Your task to perform on an android device: turn on sleep mode Image 0: 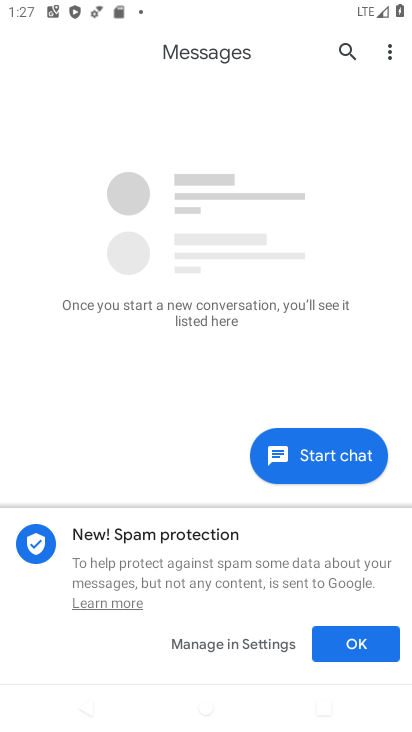
Step 0: press home button
Your task to perform on an android device: turn on sleep mode Image 1: 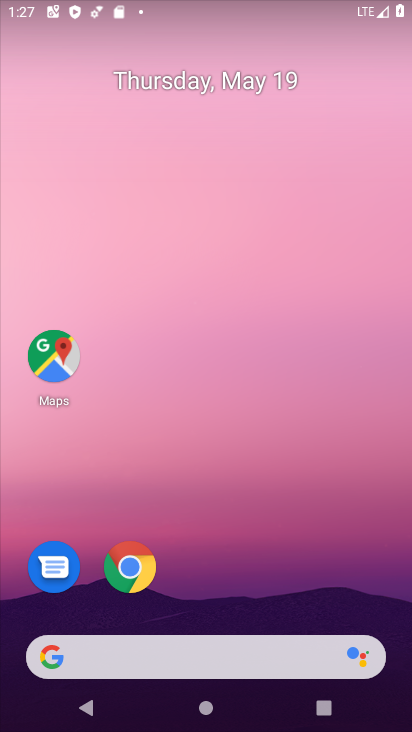
Step 1: drag from (61, 493) to (293, 40)
Your task to perform on an android device: turn on sleep mode Image 2: 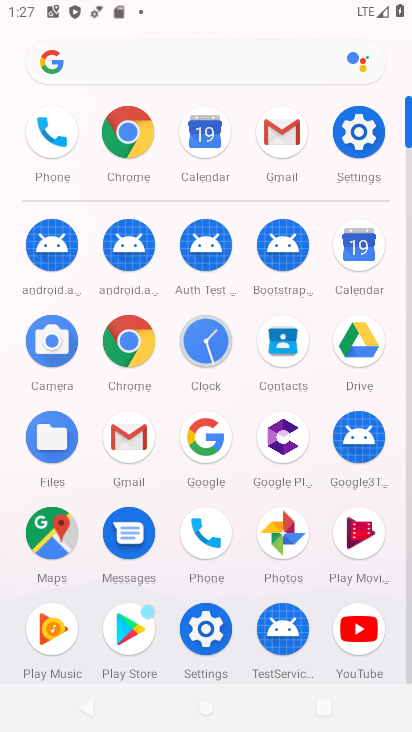
Step 2: click (365, 135)
Your task to perform on an android device: turn on sleep mode Image 3: 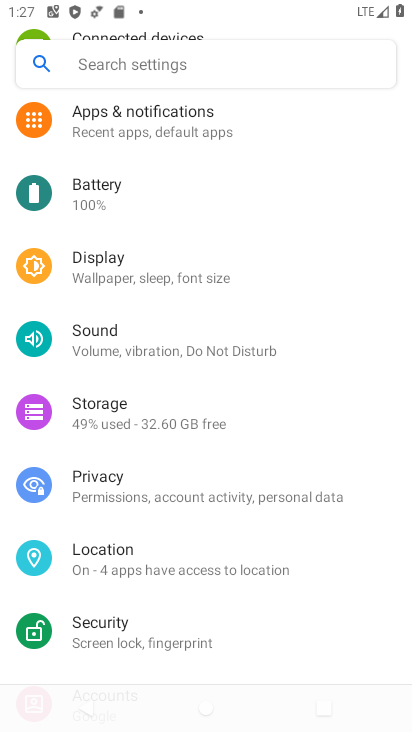
Step 3: drag from (79, 611) to (199, 168)
Your task to perform on an android device: turn on sleep mode Image 4: 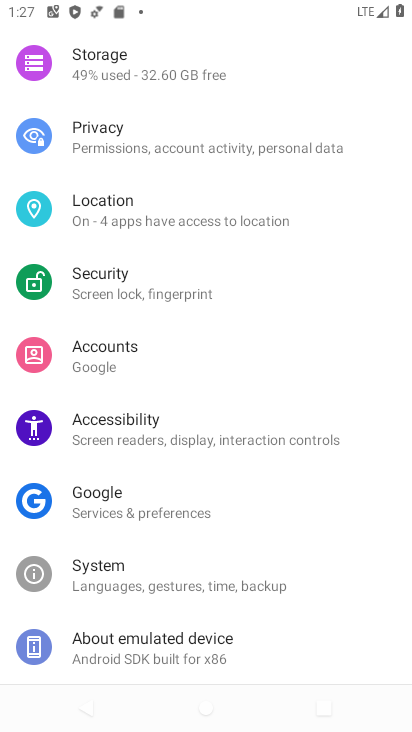
Step 4: drag from (193, 106) to (192, 499)
Your task to perform on an android device: turn on sleep mode Image 5: 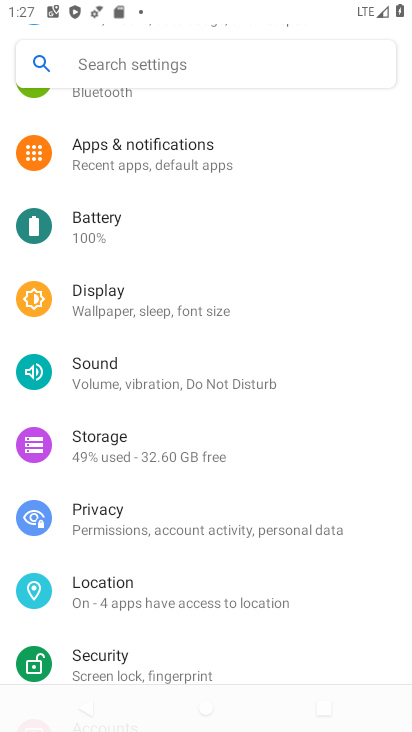
Step 5: click (154, 295)
Your task to perform on an android device: turn on sleep mode Image 6: 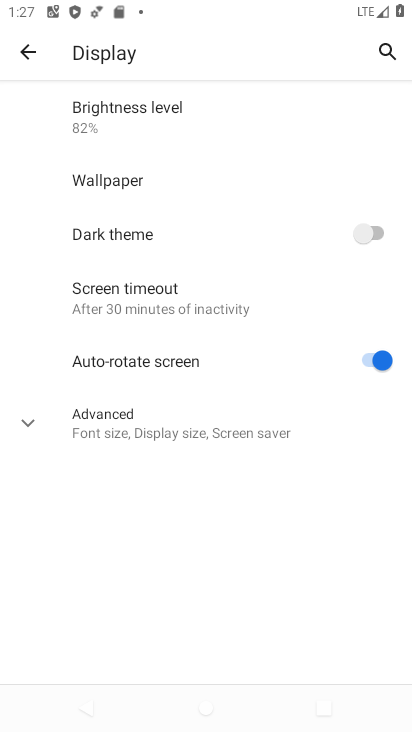
Step 6: task complete